Your task to perform on an android device: toggle javascript in the chrome app Image 0: 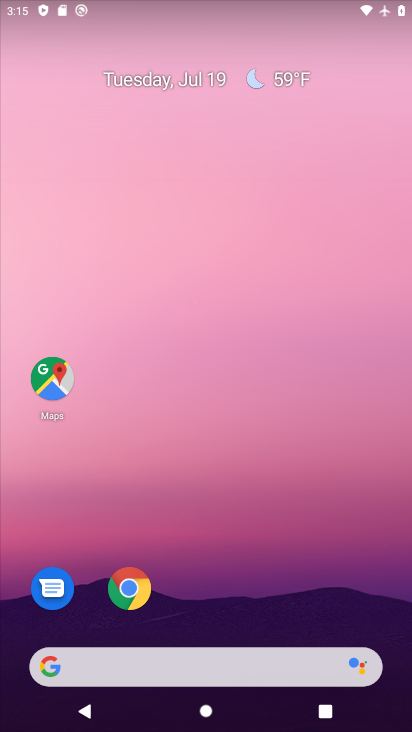
Step 0: press home button
Your task to perform on an android device: toggle javascript in the chrome app Image 1: 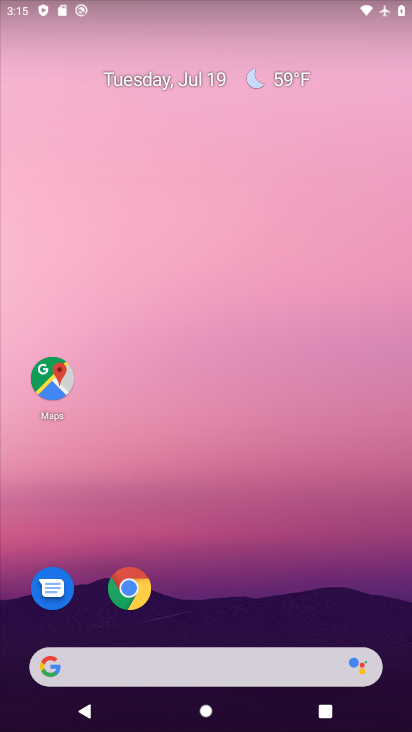
Step 1: drag from (253, 616) to (277, 0)
Your task to perform on an android device: toggle javascript in the chrome app Image 2: 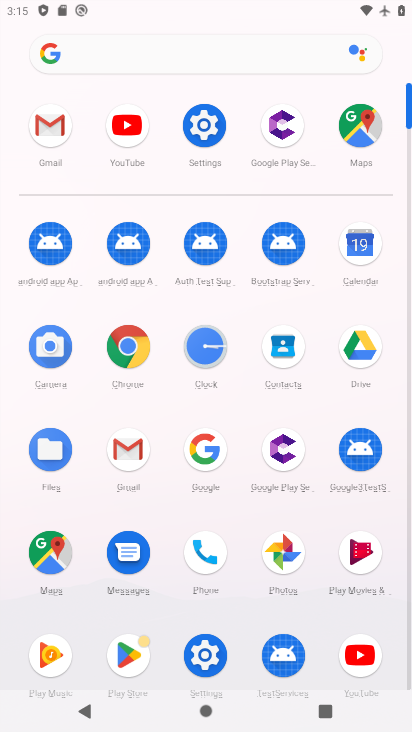
Step 2: click (131, 348)
Your task to perform on an android device: toggle javascript in the chrome app Image 3: 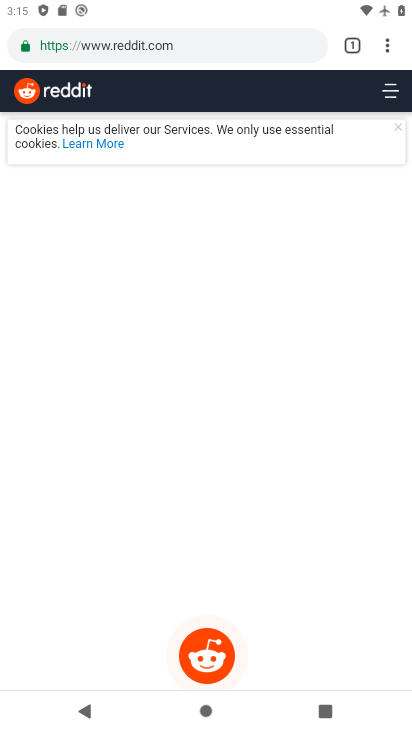
Step 3: drag from (388, 45) to (228, 516)
Your task to perform on an android device: toggle javascript in the chrome app Image 4: 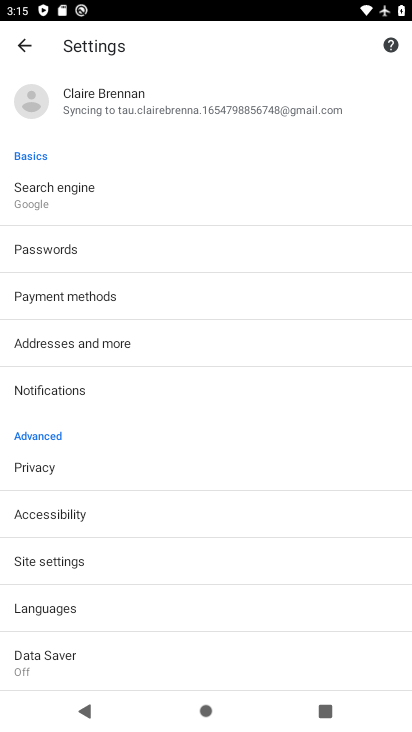
Step 4: click (46, 565)
Your task to perform on an android device: toggle javascript in the chrome app Image 5: 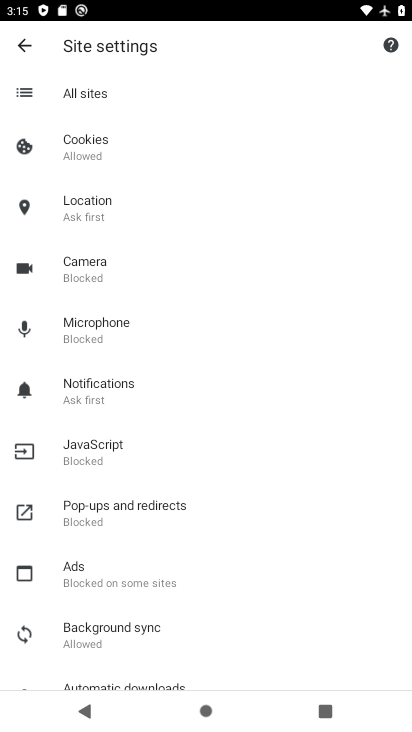
Step 5: click (101, 458)
Your task to perform on an android device: toggle javascript in the chrome app Image 6: 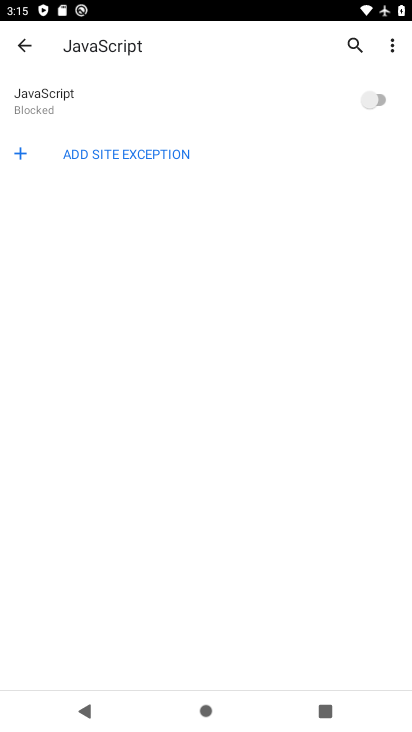
Step 6: click (377, 97)
Your task to perform on an android device: toggle javascript in the chrome app Image 7: 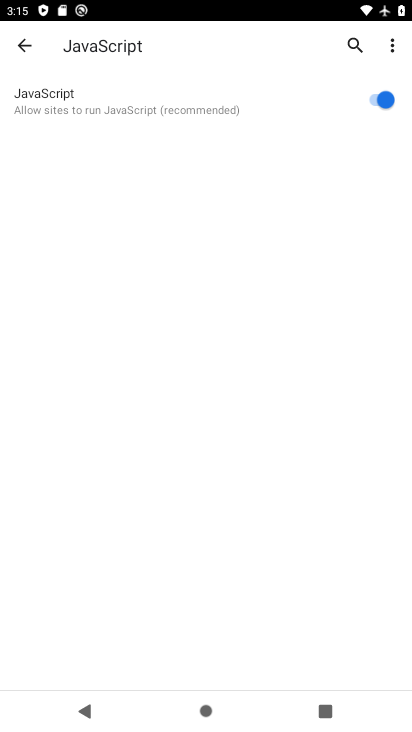
Step 7: task complete